Your task to perform on an android device: Go to display settings Image 0: 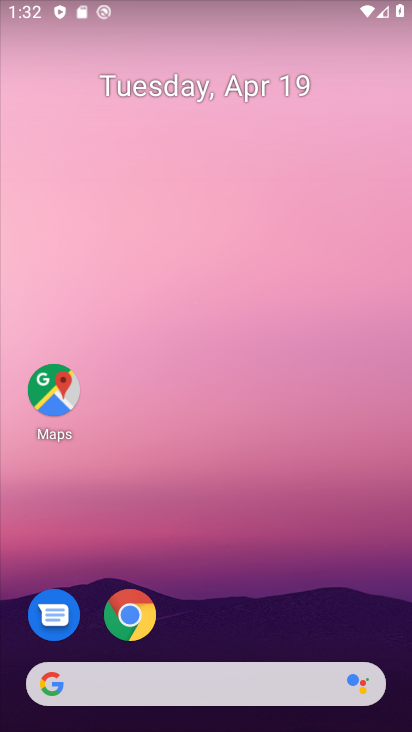
Step 0: drag from (196, 596) to (276, 327)
Your task to perform on an android device: Go to display settings Image 1: 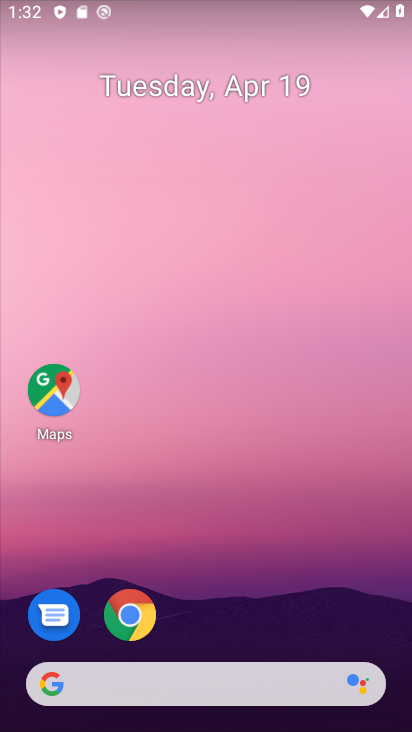
Step 1: drag from (224, 547) to (317, 0)
Your task to perform on an android device: Go to display settings Image 2: 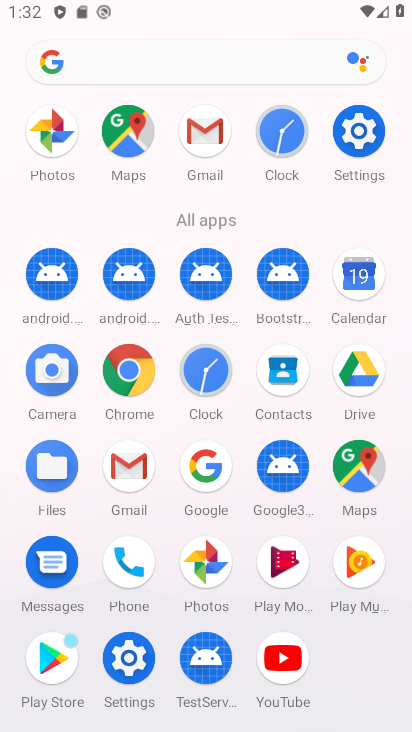
Step 2: drag from (191, 549) to (327, 261)
Your task to perform on an android device: Go to display settings Image 3: 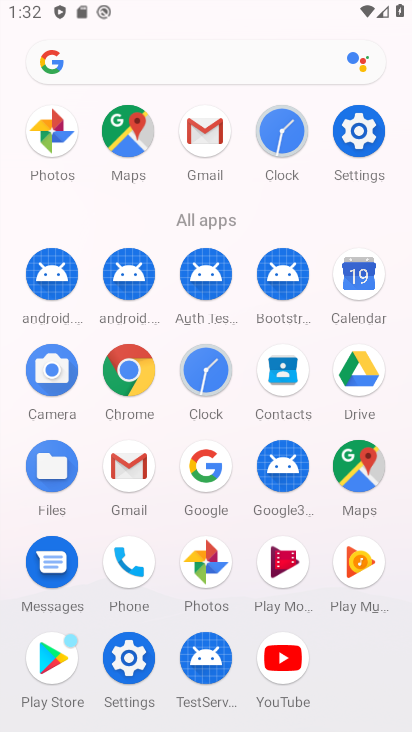
Step 3: drag from (194, 452) to (315, 46)
Your task to perform on an android device: Go to display settings Image 4: 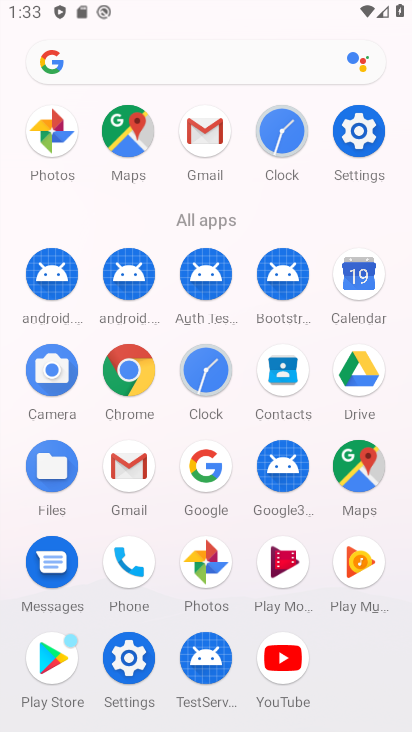
Step 4: click (140, 649)
Your task to perform on an android device: Go to display settings Image 5: 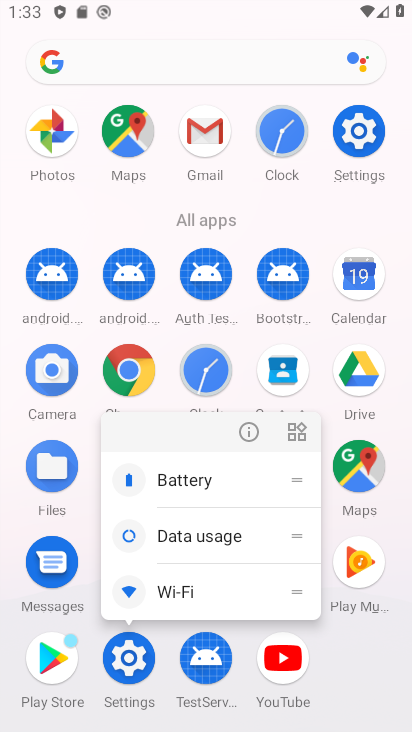
Step 5: click (247, 434)
Your task to perform on an android device: Go to display settings Image 6: 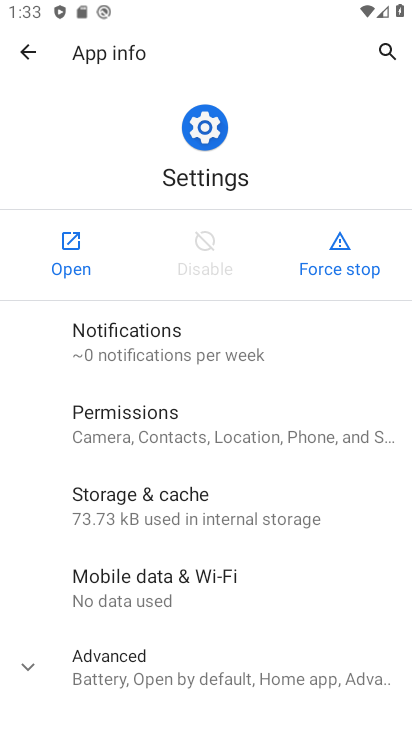
Step 6: click (77, 231)
Your task to perform on an android device: Go to display settings Image 7: 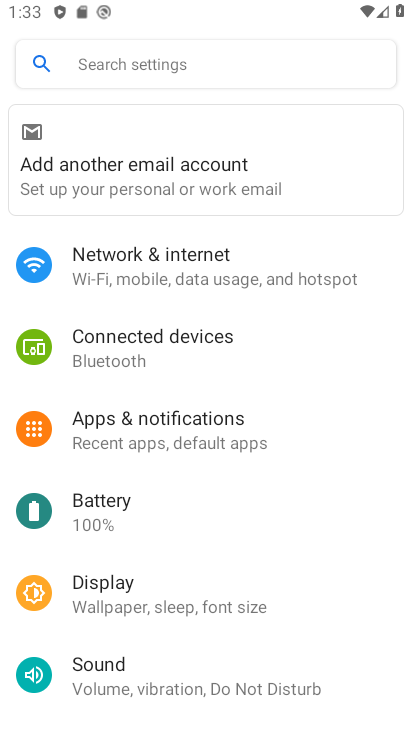
Step 7: drag from (196, 524) to (294, 185)
Your task to perform on an android device: Go to display settings Image 8: 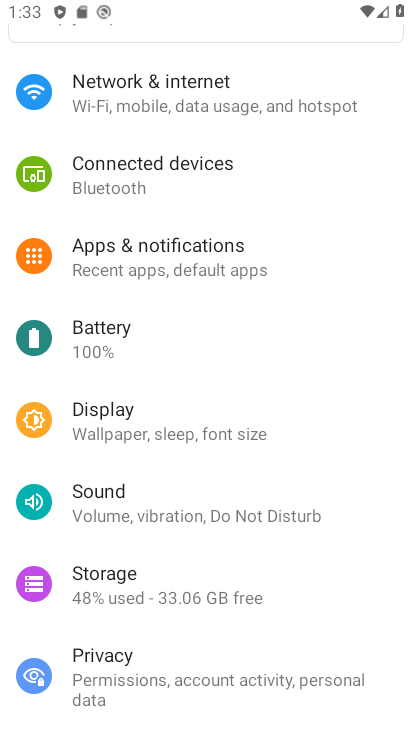
Step 8: click (134, 497)
Your task to perform on an android device: Go to display settings Image 9: 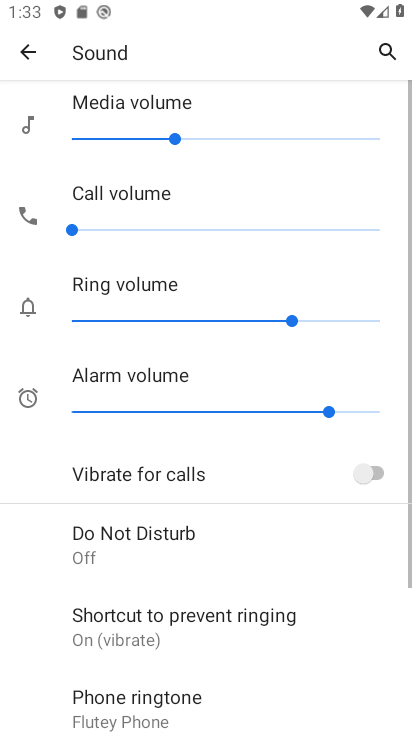
Step 9: click (35, 56)
Your task to perform on an android device: Go to display settings Image 10: 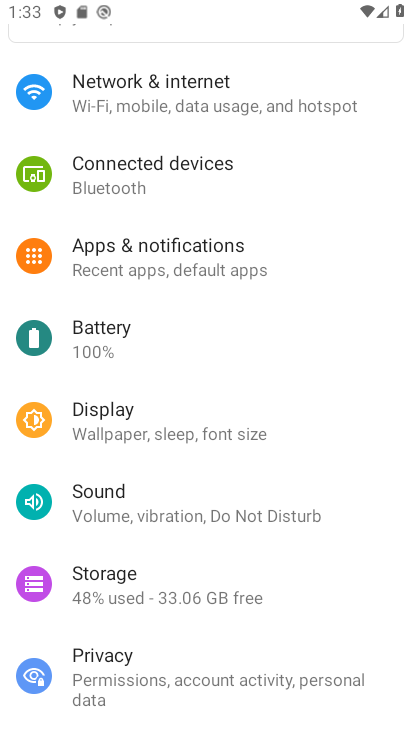
Step 10: click (116, 417)
Your task to perform on an android device: Go to display settings Image 11: 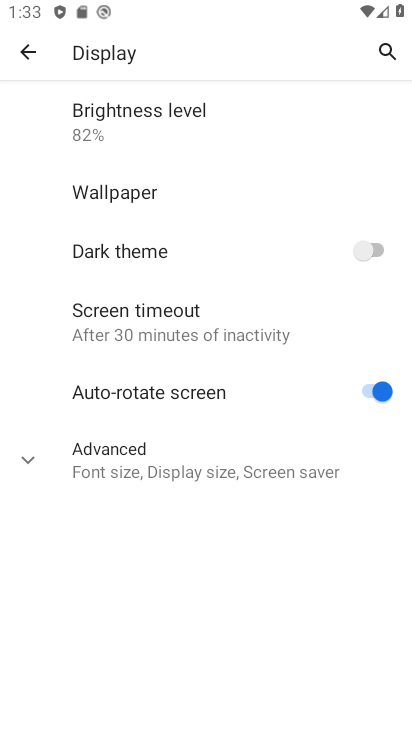
Step 11: task complete